Your task to perform on an android device: What's the weather today? Image 0: 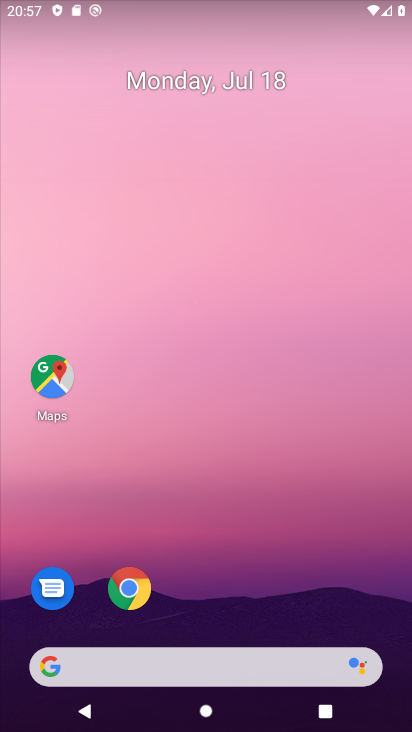
Step 0: press home button
Your task to perform on an android device: What's the weather today? Image 1: 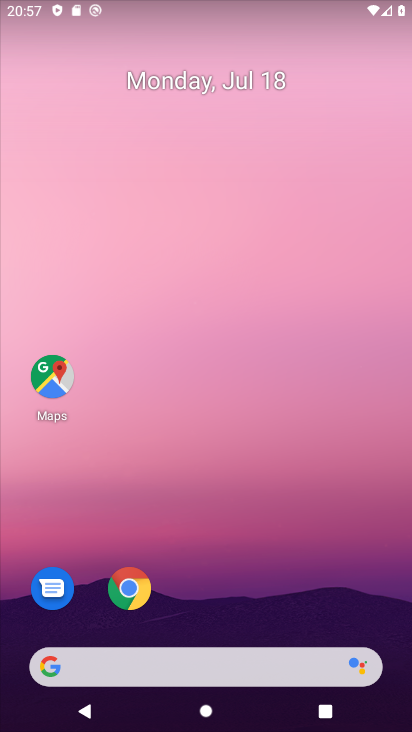
Step 1: click (137, 592)
Your task to perform on an android device: What's the weather today? Image 2: 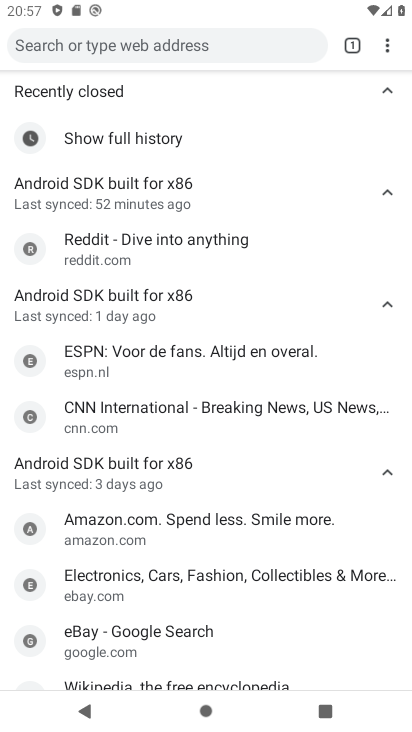
Step 2: click (142, 46)
Your task to perform on an android device: What's the weather today? Image 3: 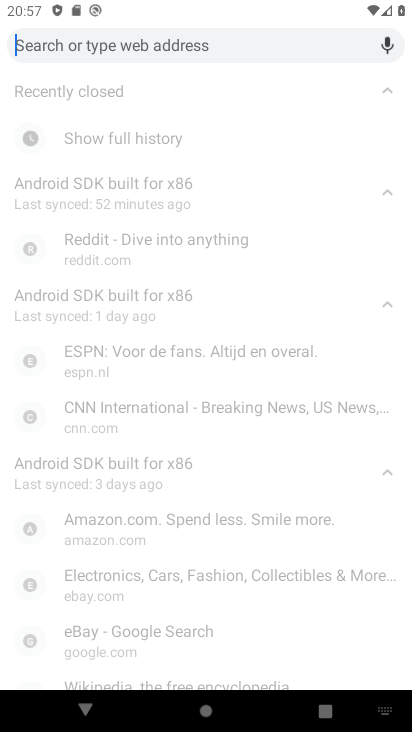
Step 3: click (273, 53)
Your task to perform on an android device: What's the weather today? Image 4: 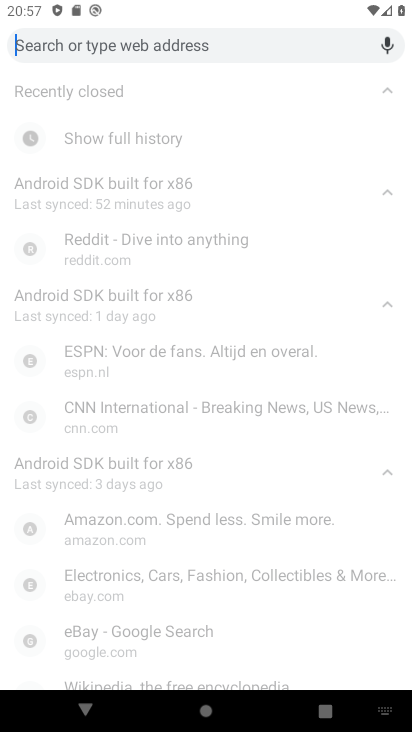
Step 4: type "What's the weather today?"
Your task to perform on an android device: What's the weather today? Image 5: 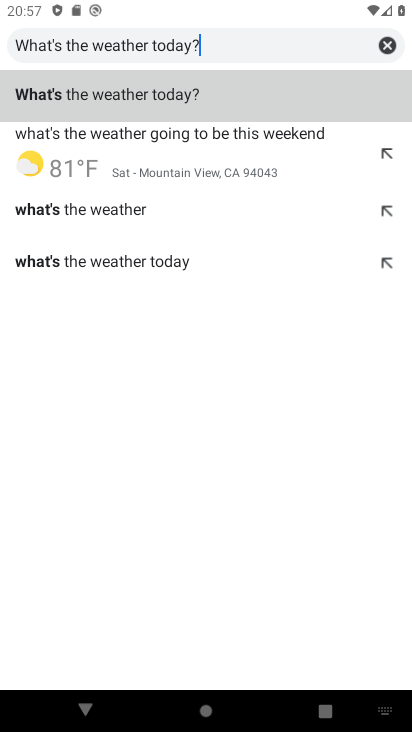
Step 5: type ""
Your task to perform on an android device: What's the weather today? Image 6: 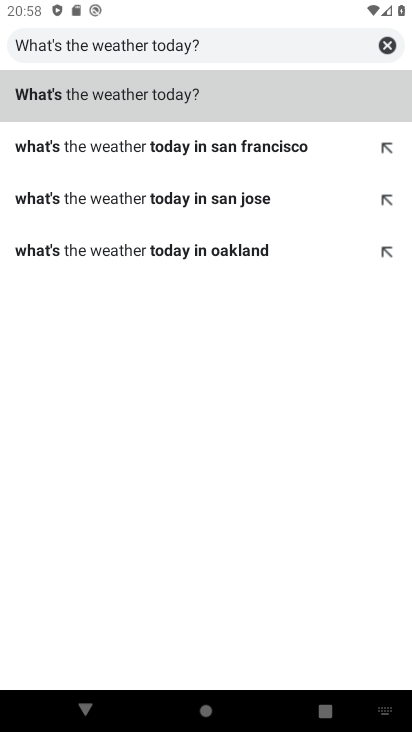
Step 6: click (159, 93)
Your task to perform on an android device: What's the weather today? Image 7: 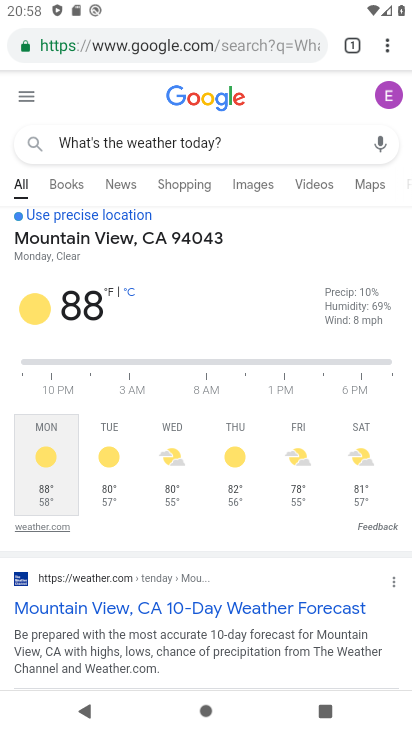
Step 7: task complete